Your task to perform on an android device: How do I get to the nearest Nordstrom? Image 0: 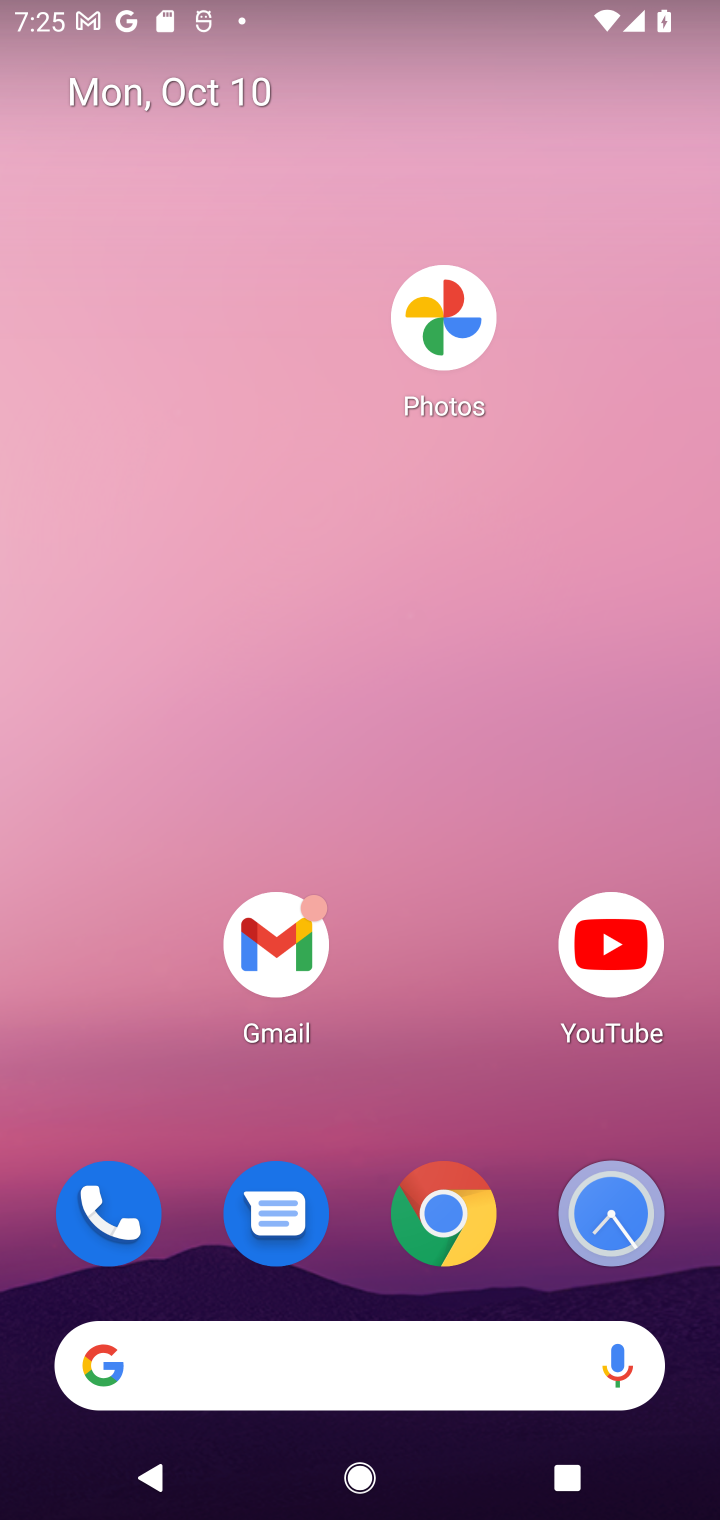
Step 0: click (329, 1381)
Your task to perform on an android device: How do I get to the nearest Nordstrom? Image 1: 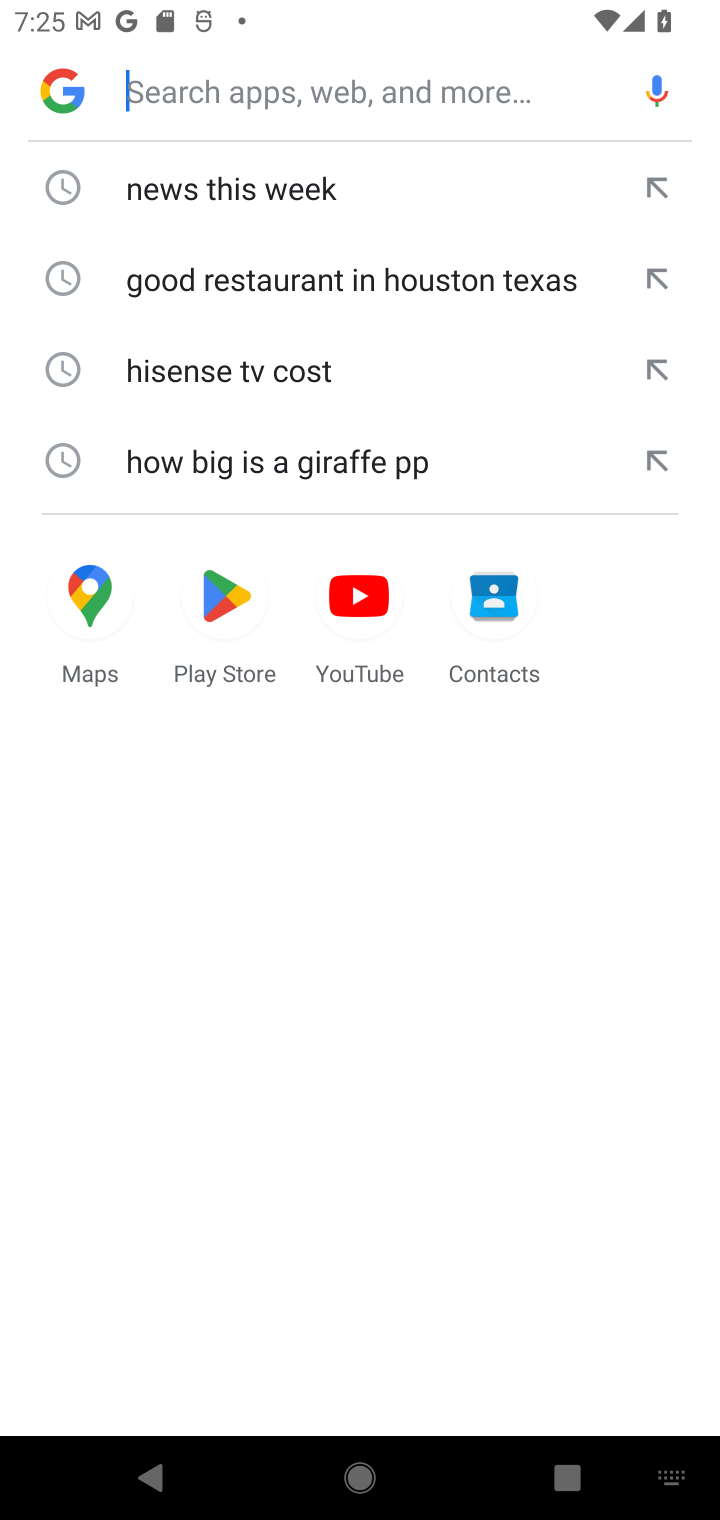
Step 1: type "nearest Nordstrom"
Your task to perform on an android device: How do I get to the nearest Nordstrom? Image 2: 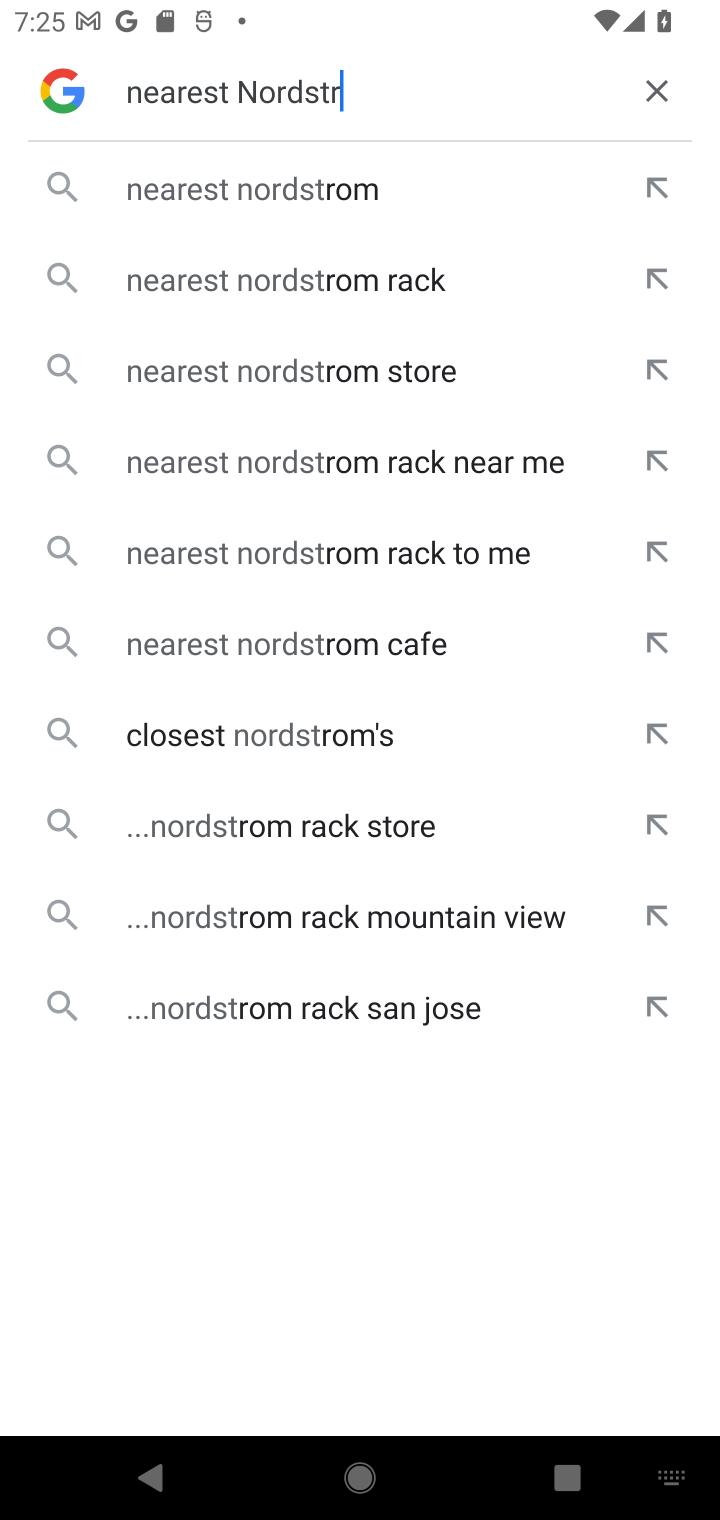
Step 2: type ""
Your task to perform on an android device: How do I get to the nearest Nordstrom? Image 3: 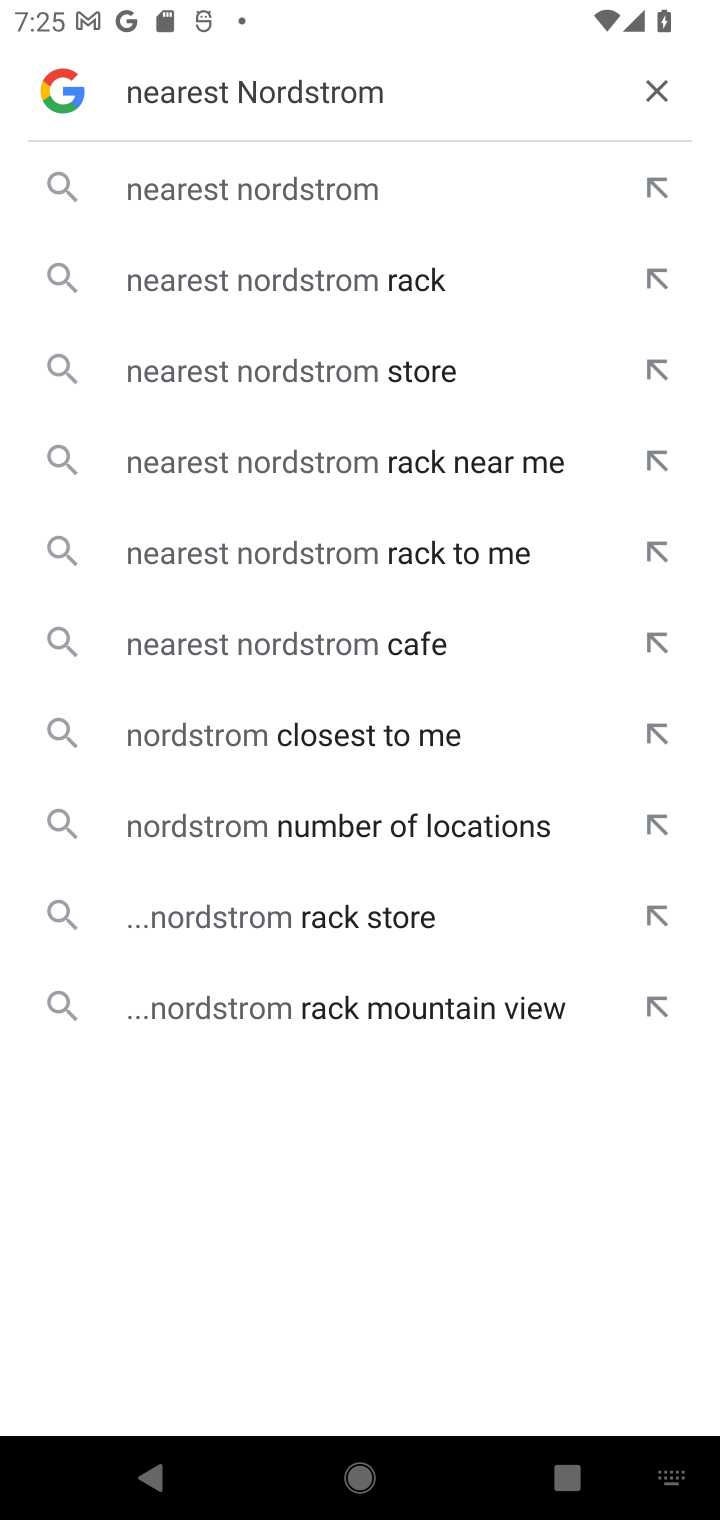
Step 3: click (296, 199)
Your task to perform on an android device: How do I get to the nearest Nordstrom? Image 4: 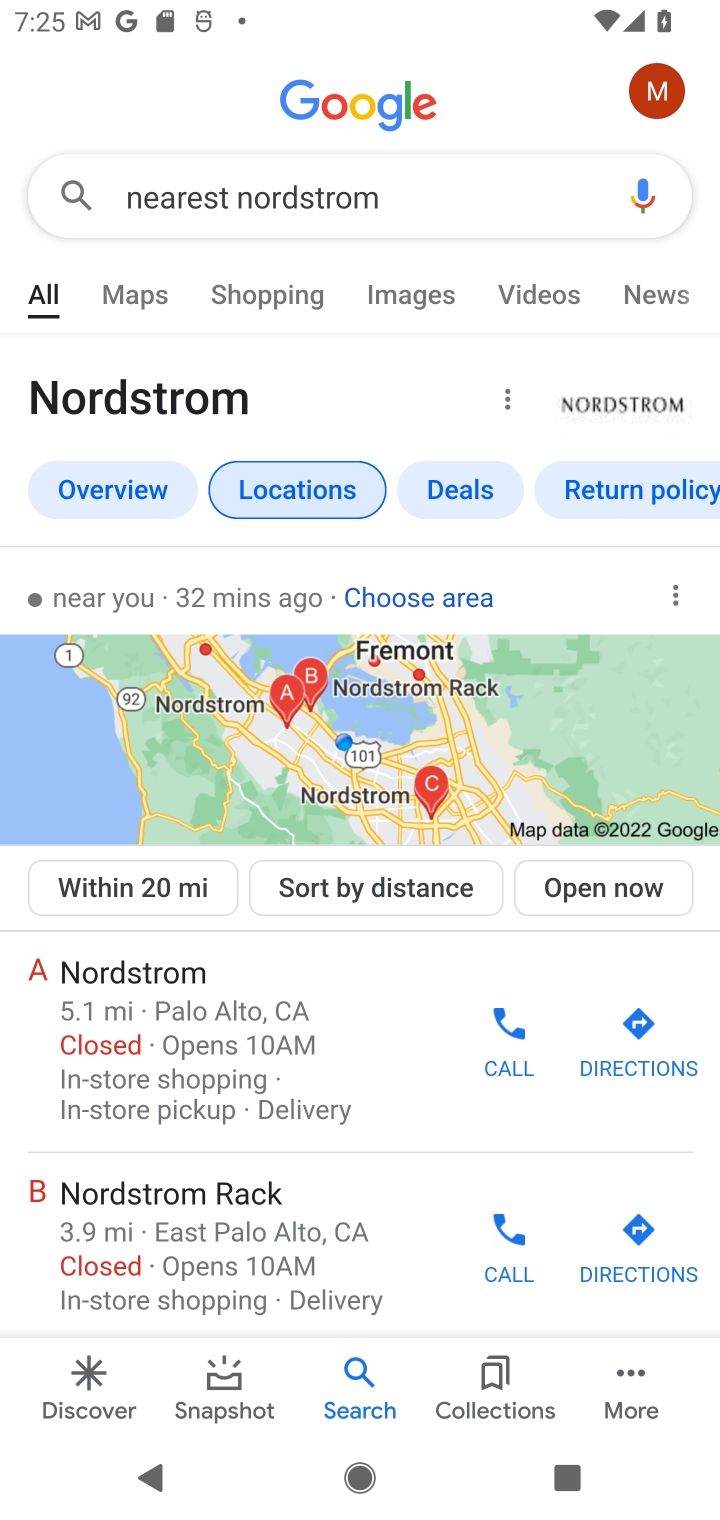
Step 4: task complete